Your task to perform on an android device: Open Google Maps Image 0: 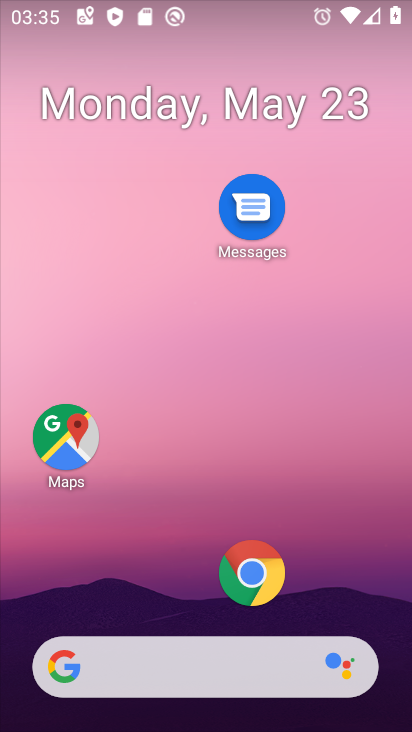
Step 0: drag from (271, 479) to (237, 47)
Your task to perform on an android device: Open Google Maps Image 1: 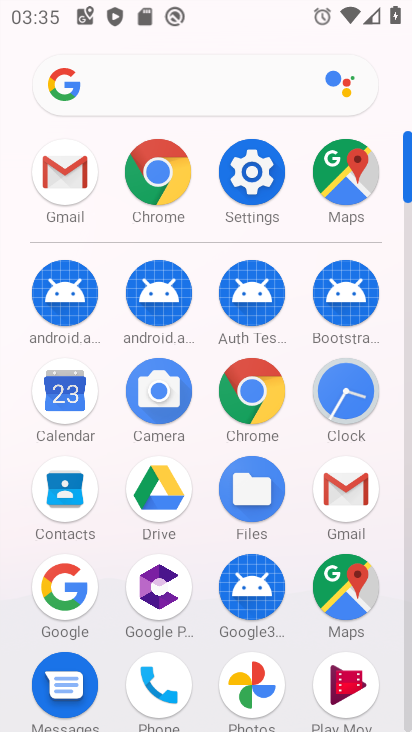
Step 1: click (339, 582)
Your task to perform on an android device: Open Google Maps Image 2: 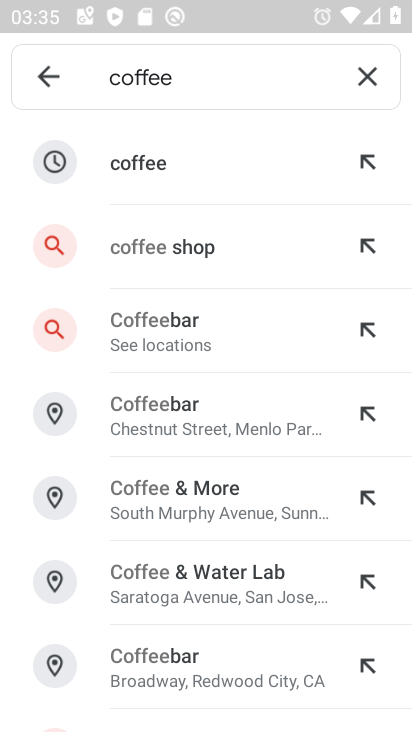
Step 2: task complete